Your task to perform on an android device: empty trash in google photos Image 0: 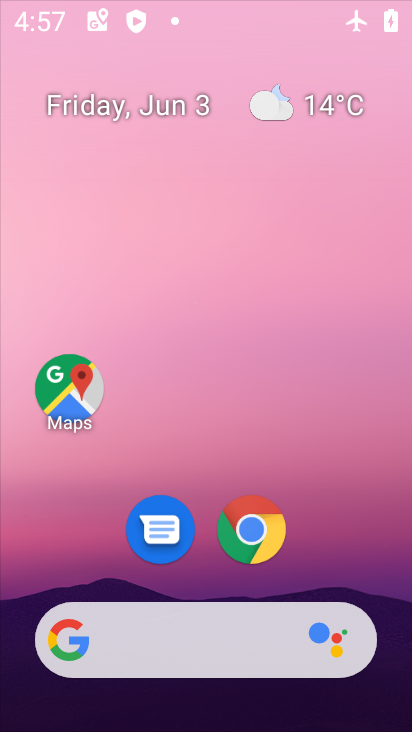
Step 0: drag from (379, 496) to (407, 193)
Your task to perform on an android device: empty trash in google photos Image 1: 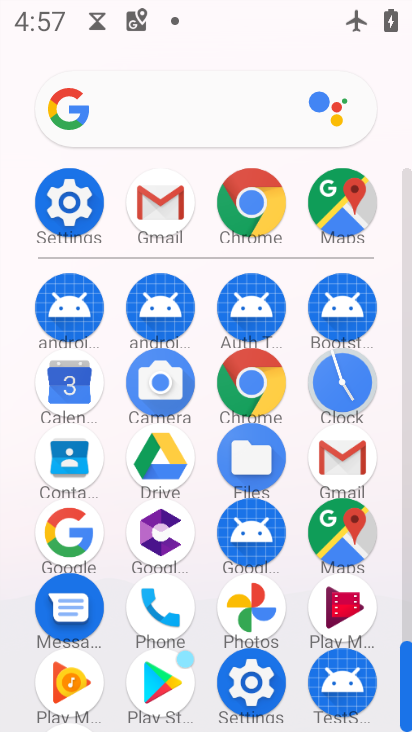
Step 1: click (233, 605)
Your task to perform on an android device: empty trash in google photos Image 2: 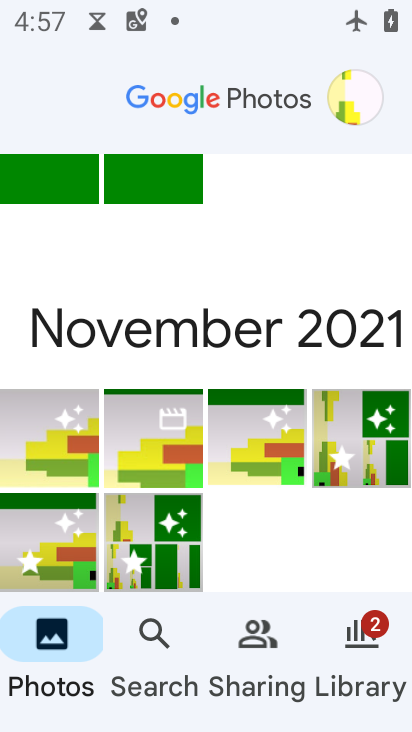
Step 2: click (362, 116)
Your task to perform on an android device: empty trash in google photos Image 3: 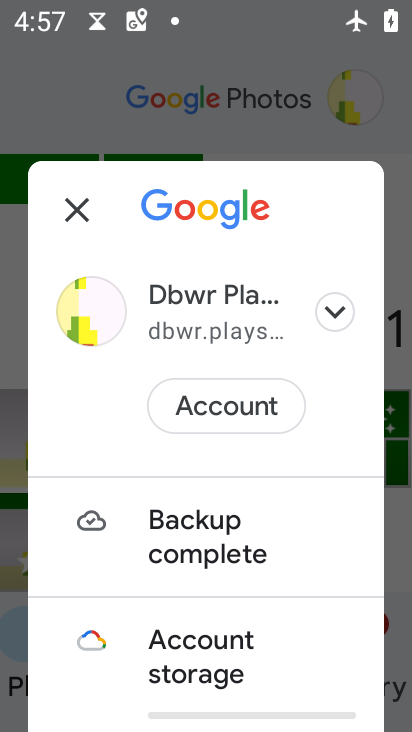
Step 3: task complete